Your task to perform on an android device: check out phone information Image 0: 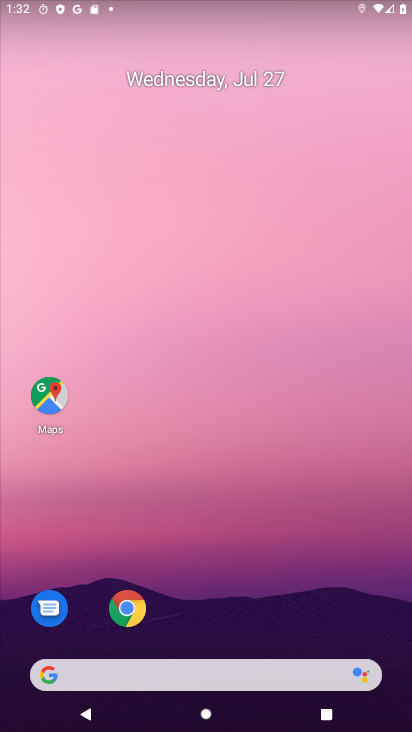
Step 0: drag from (172, 618) to (198, 148)
Your task to perform on an android device: check out phone information Image 1: 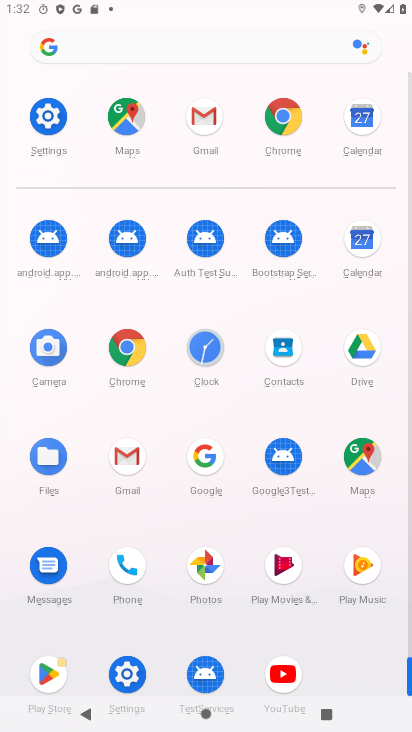
Step 1: click (116, 673)
Your task to perform on an android device: check out phone information Image 2: 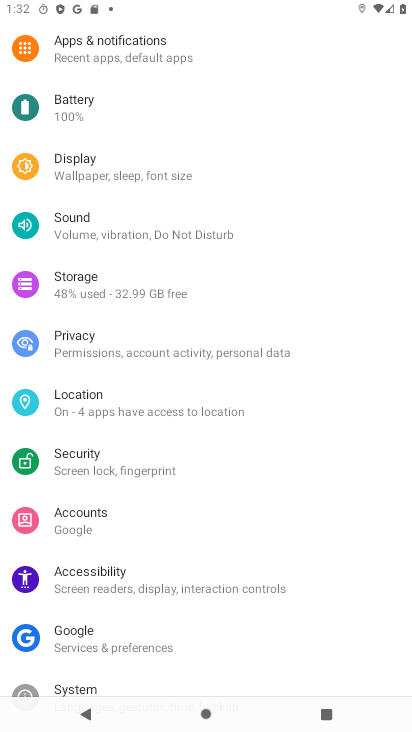
Step 2: drag from (170, 642) to (198, 158)
Your task to perform on an android device: check out phone information Image 3: 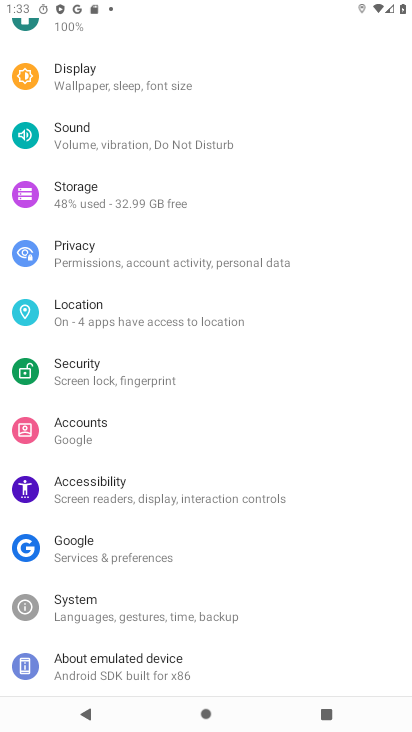
Step 3: click (81, 662)
Your task to perform on an android device: check out phone information Image 4: 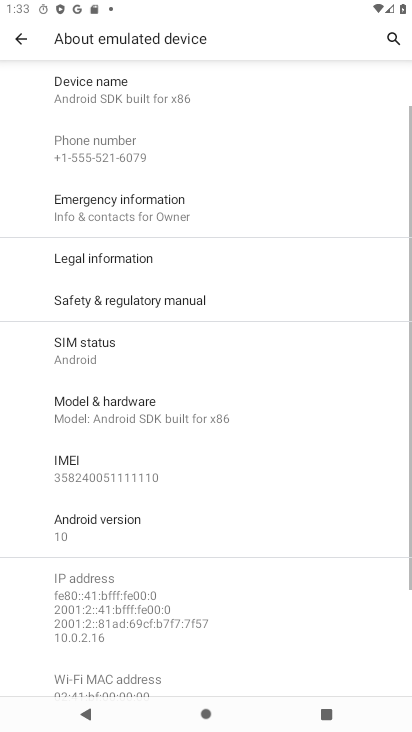
Step 4: task complete